Your task to perform on an android device: check android version Image 0: 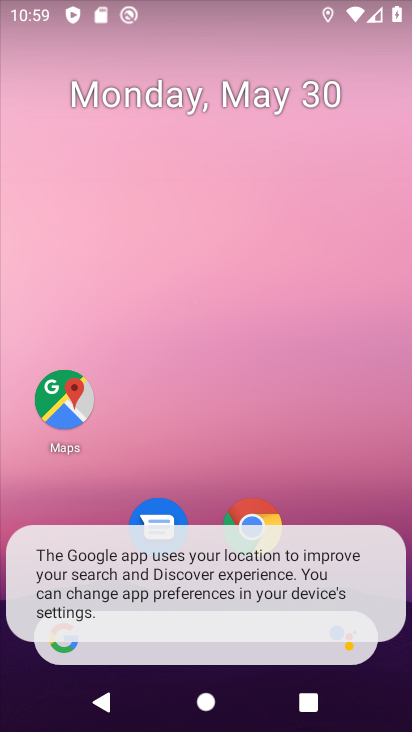
Step 0: press home button
Your task to perform on an android device: check android version Image 1: 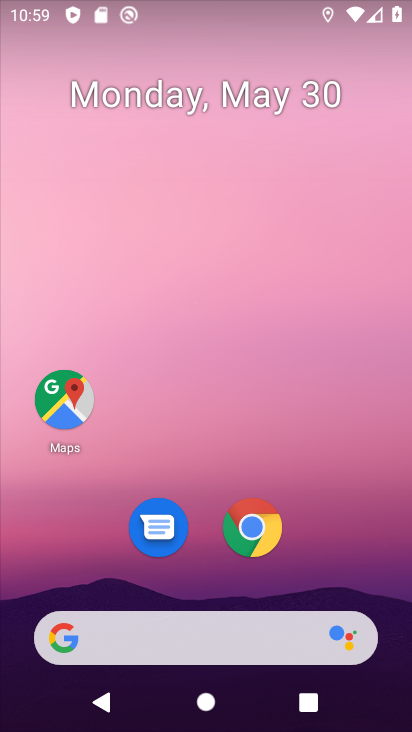
Step 1: drag from (370, 564) to (316, 77)
Your task to perform on an android device: check android version Image 2: 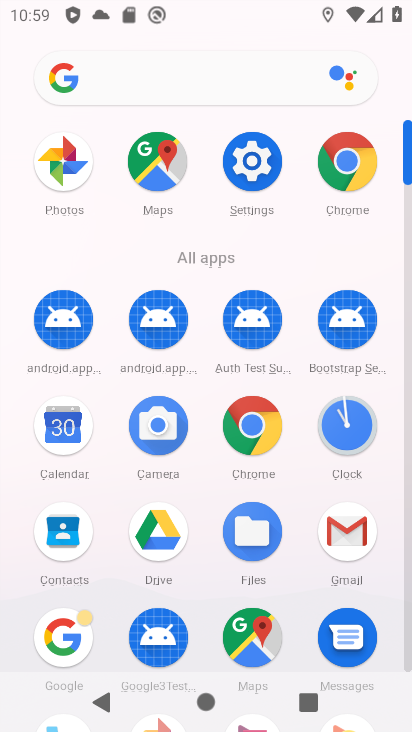
Step 2: click (244, 163)
Your task to perform on an android device: check android version Image 3: 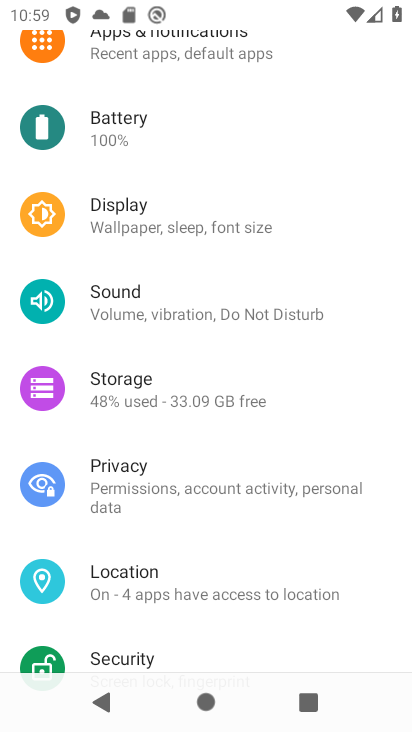
Step 3: drag from (251, 640) to (261, 306)
Your task to perform on an android device: check android version Image 4: 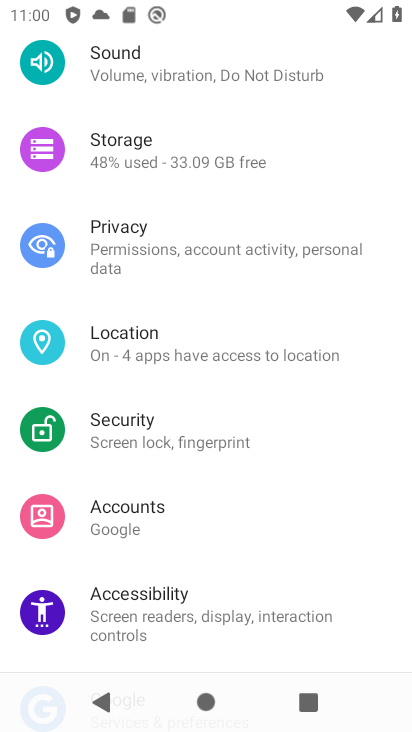
Step 4: drag from (191, 584) to (330, 122)
Your task to perform on an android device: check android version Image 5: 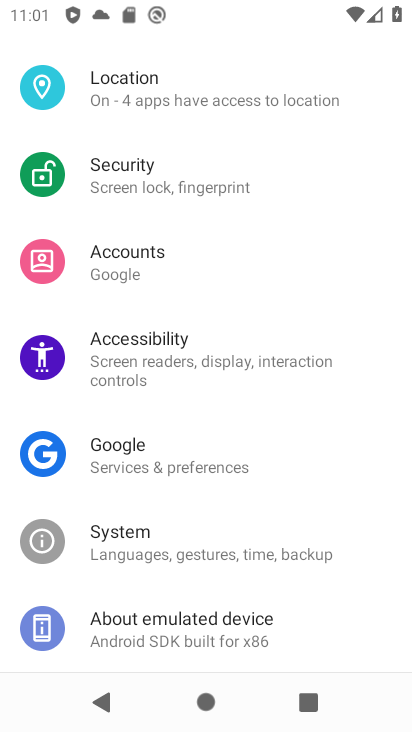
Step 5: drag from (250, 566) to (271, 263)
Your task to perform on an android device: check android version Image 6: 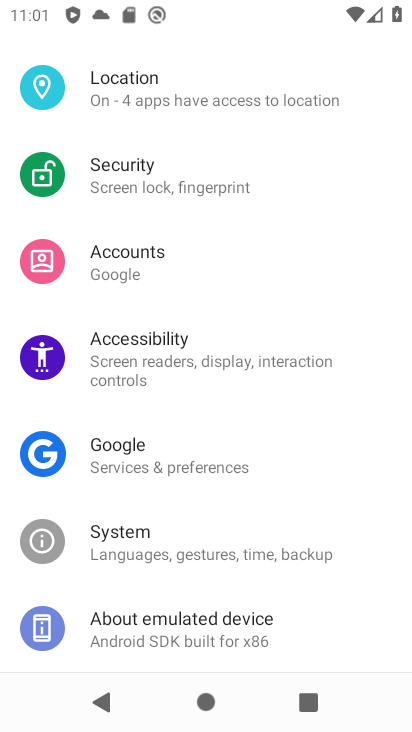
Step 6: drag from (212, 492) to (264, 220)
Your task to perform on an android device: check android version Image 7: 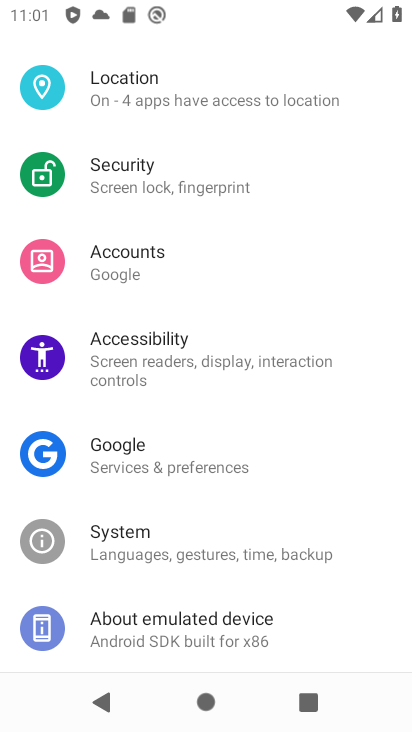
Step 7: click (190, 631)
Your task to perform on an android device: check android version Image 8: 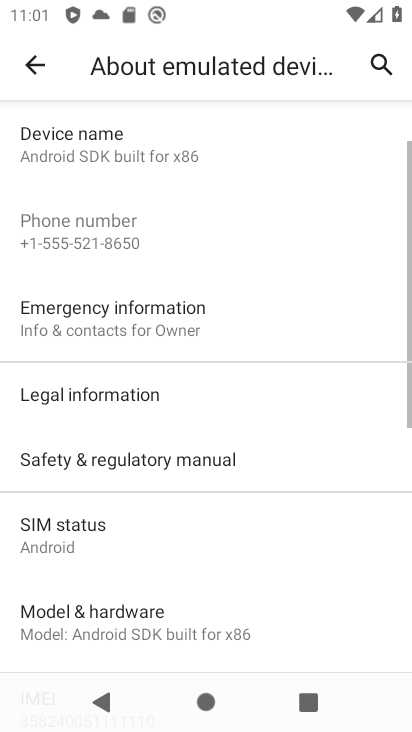
Step 8: drag from (159, 604) to (207, 334)
Your task to perform on an android device: check android version Image 9: 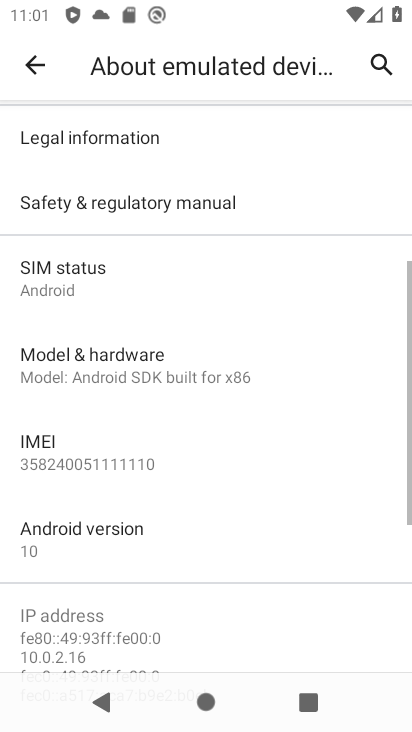
Step 9: click (89, 548)
Your task to perform on an android device: check android version Image 10: 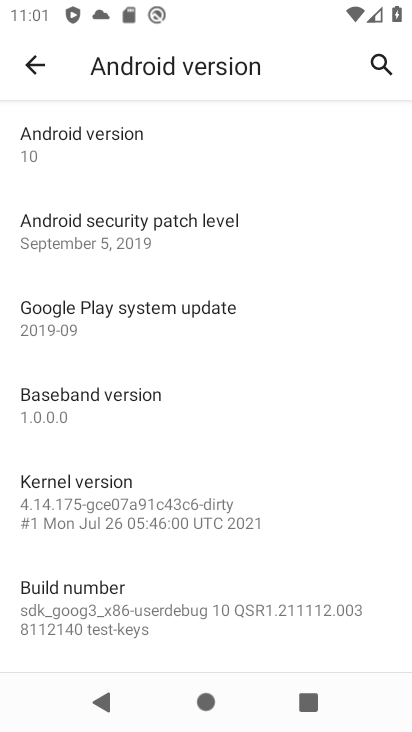
Step 10: task complete